Your task to perform on an android device: toggle data saver in the chrome app Image 0: 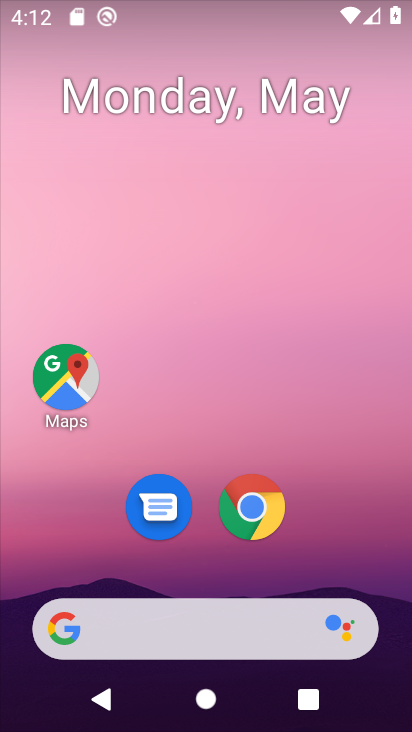
Step 0: click (281, 503)
Your task to perform on an android device: toggle data saver in the chrome app Image 1: 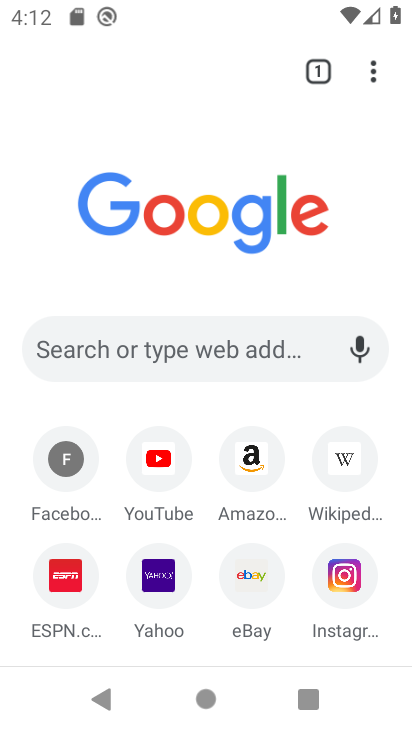
Step 1: drag from (381, 64) to (171, 513)
Your task to perform on an android device: toggle data saver in the chrome app Image 2: 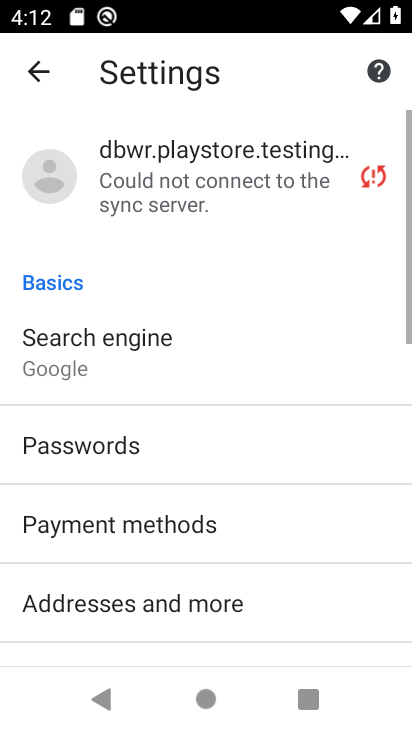
Step 2: click (254, 7)
Your task to perform on an android device: toggle data saver in the chrome app Image 3: 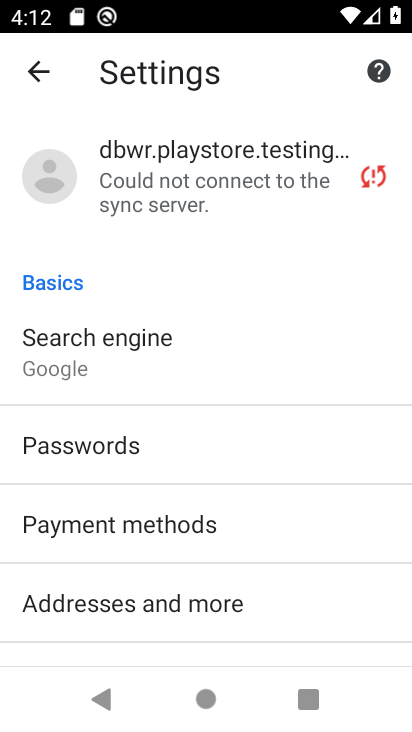
Step 3: drag from (170, 542) to (254, 139)
Your task to perform on an android device: toggle data saver in the chrome app Image 4: 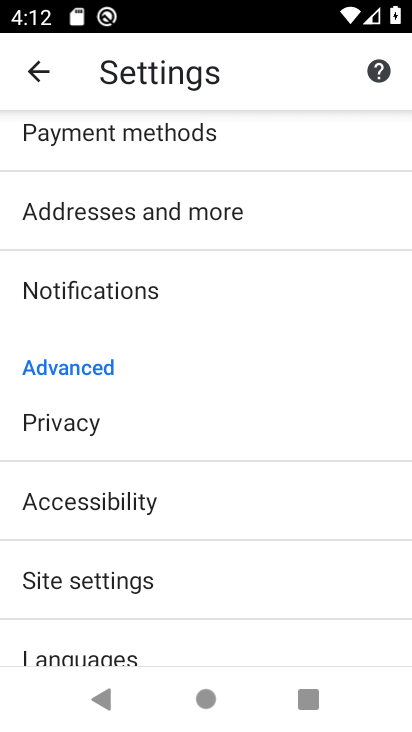
Step 4: drag from (146, 617) to (187, 216)
Your task to perform on an android device: toggle data saver in the chrome app Image 5: 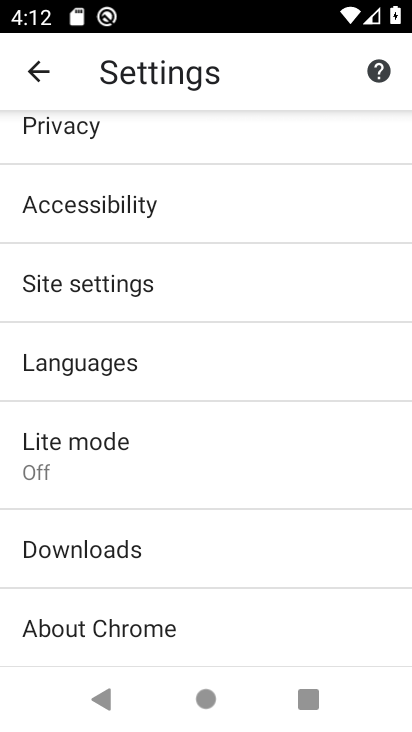
Step 5: click (164, 419)
Your task to perform on an android device: toggle data saver in the chrome app Image 6: 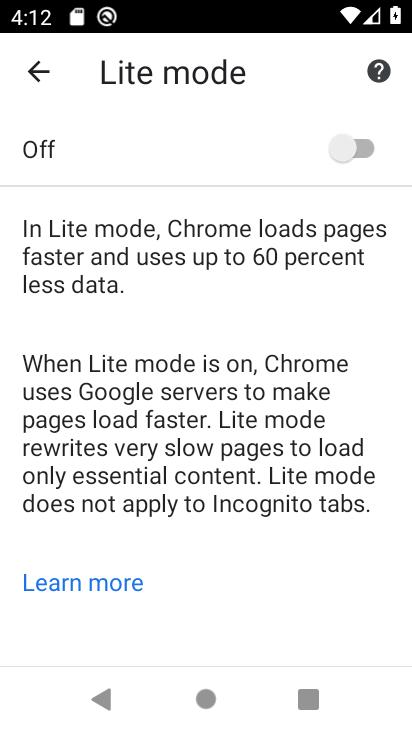
Step 6: click (248, 151)
Your task to perform on an android device: toggle data saver in the chrome app Image 7: 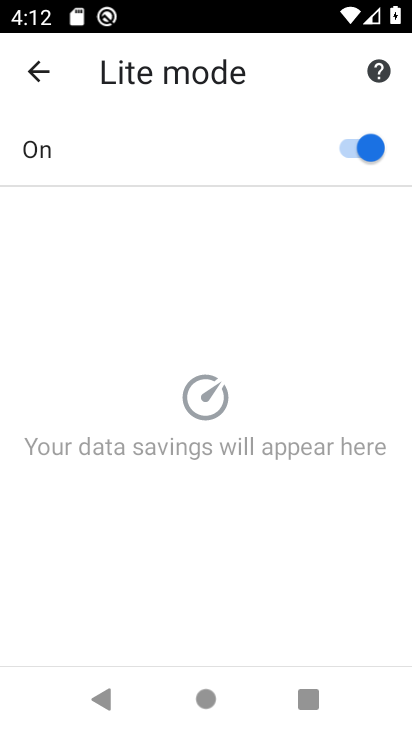
Step 7: task complete